Your task to perform on an android device: Do I have any events today? Image 0: 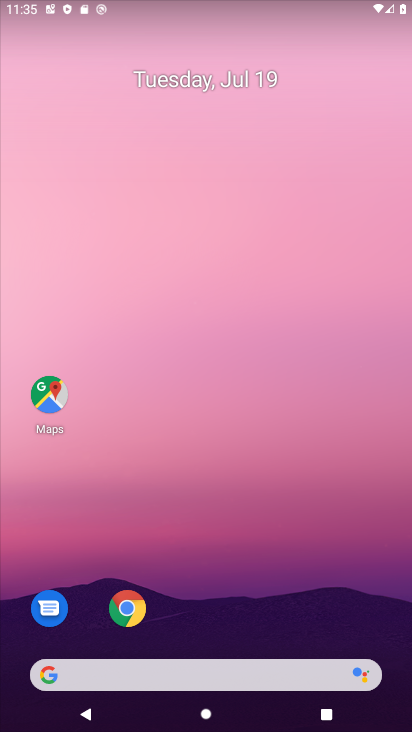
Step 0: drag from (194, 642) to (189, 96)
Your task to perform on an android device: Do I have any events today? Image 1: 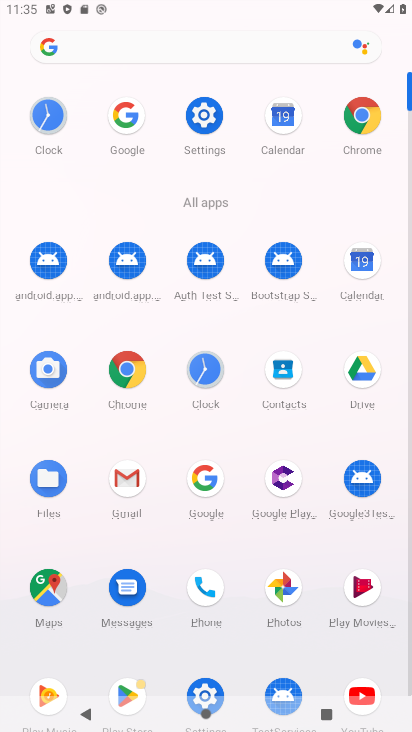
Step 1: click (355, 262)
Your task to perform on an android device: Do I have any events today? Image 2: 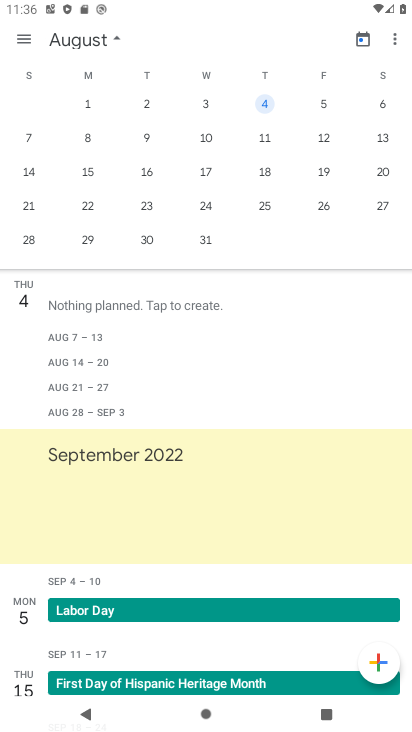
Step 2: drag from (44, 239) to (396, 221)
Your task to perform on an android device: Do I have any events today? Image 3: 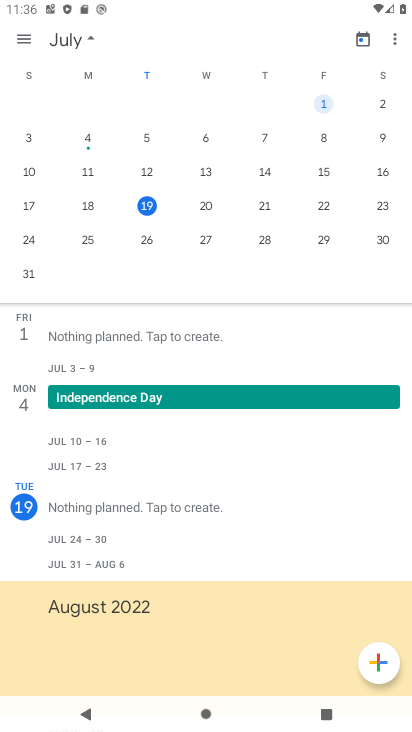
Step 3: click (146, 203)
Your task to perform on an android device: Do I have any events today? Image 4: 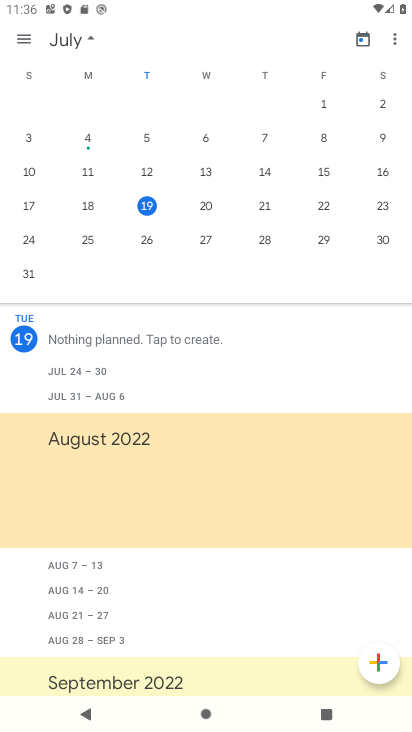
Step 4: task complete